Your task to perform on an android device: Add razer thresher to the cart on ebay.com Image 0: 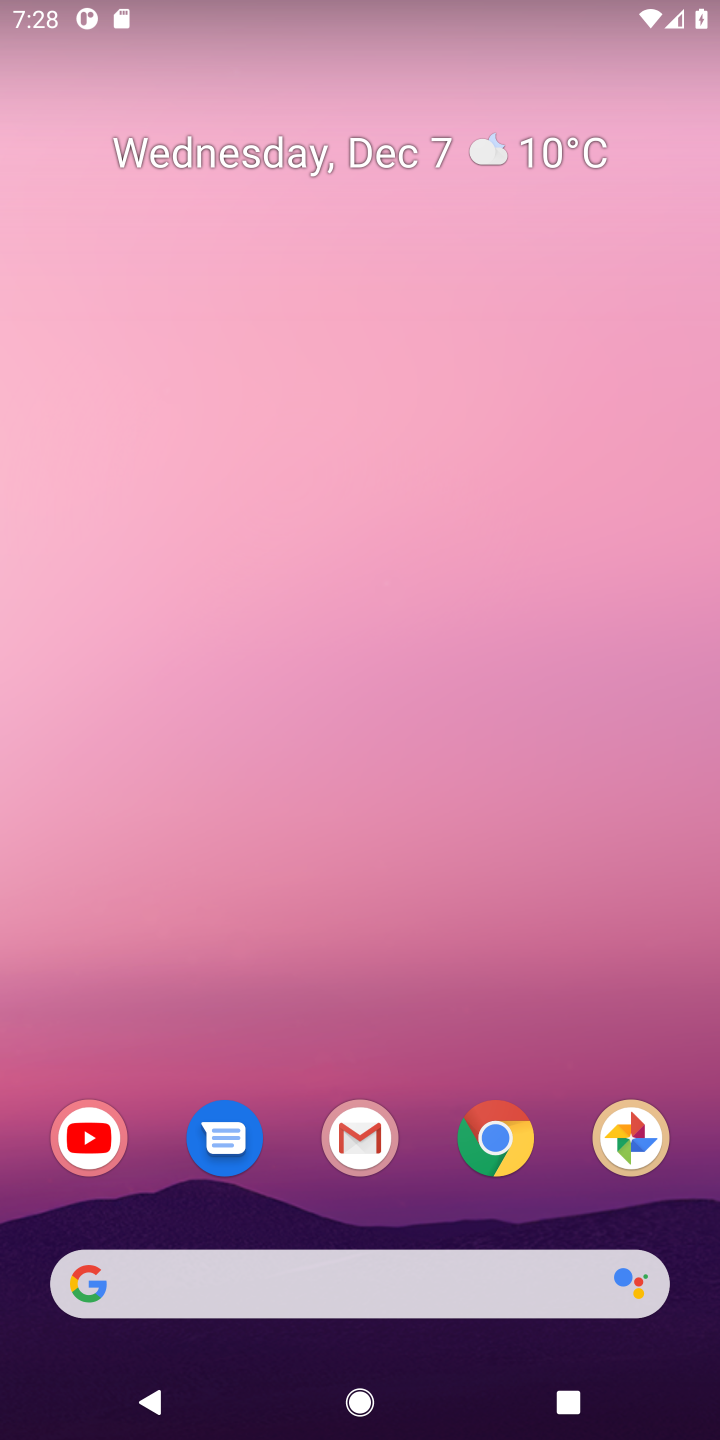
Step 0: press home button
Your task to perform on an android device: Add razer thresher to the cart on ebay.com Image 1: 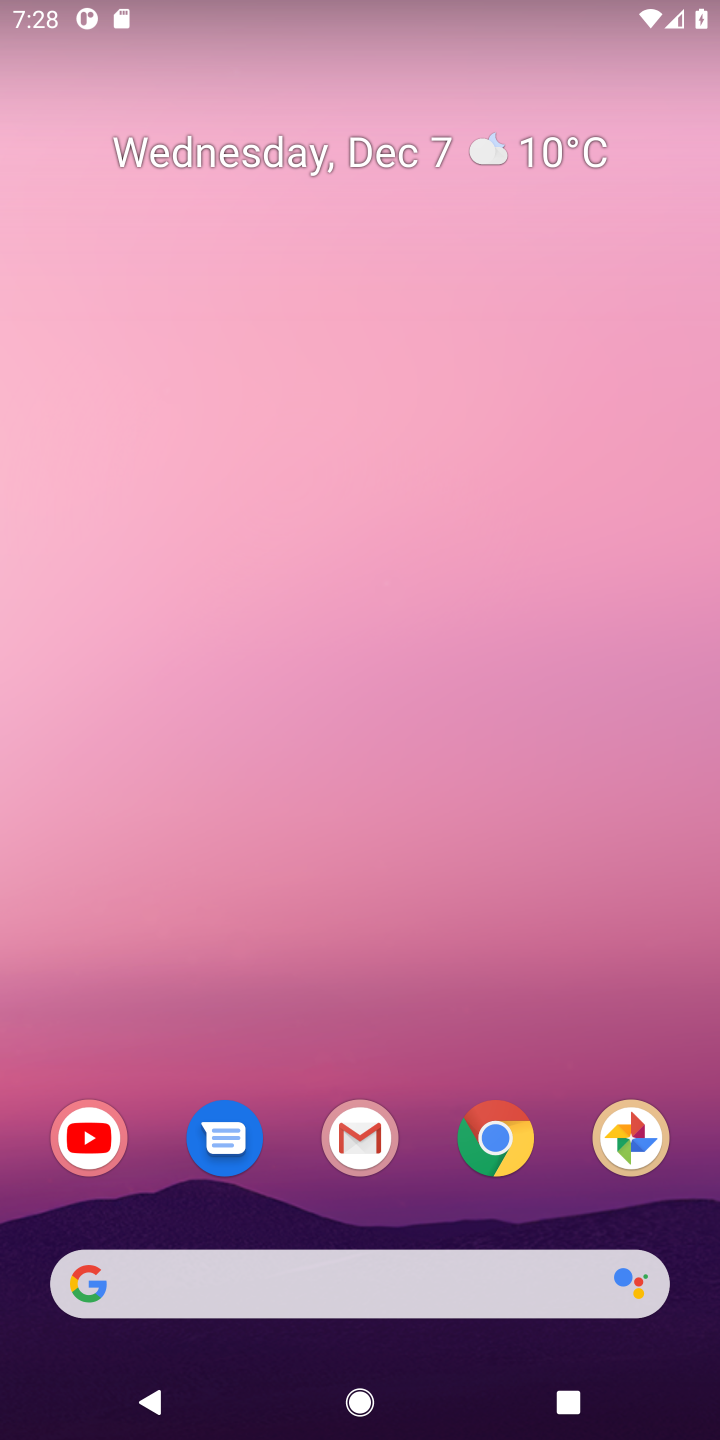
Step 1: click (136, 1284)
Your task to perform on an android device: Add razer thresher to the cart on ebay.com Image 2: 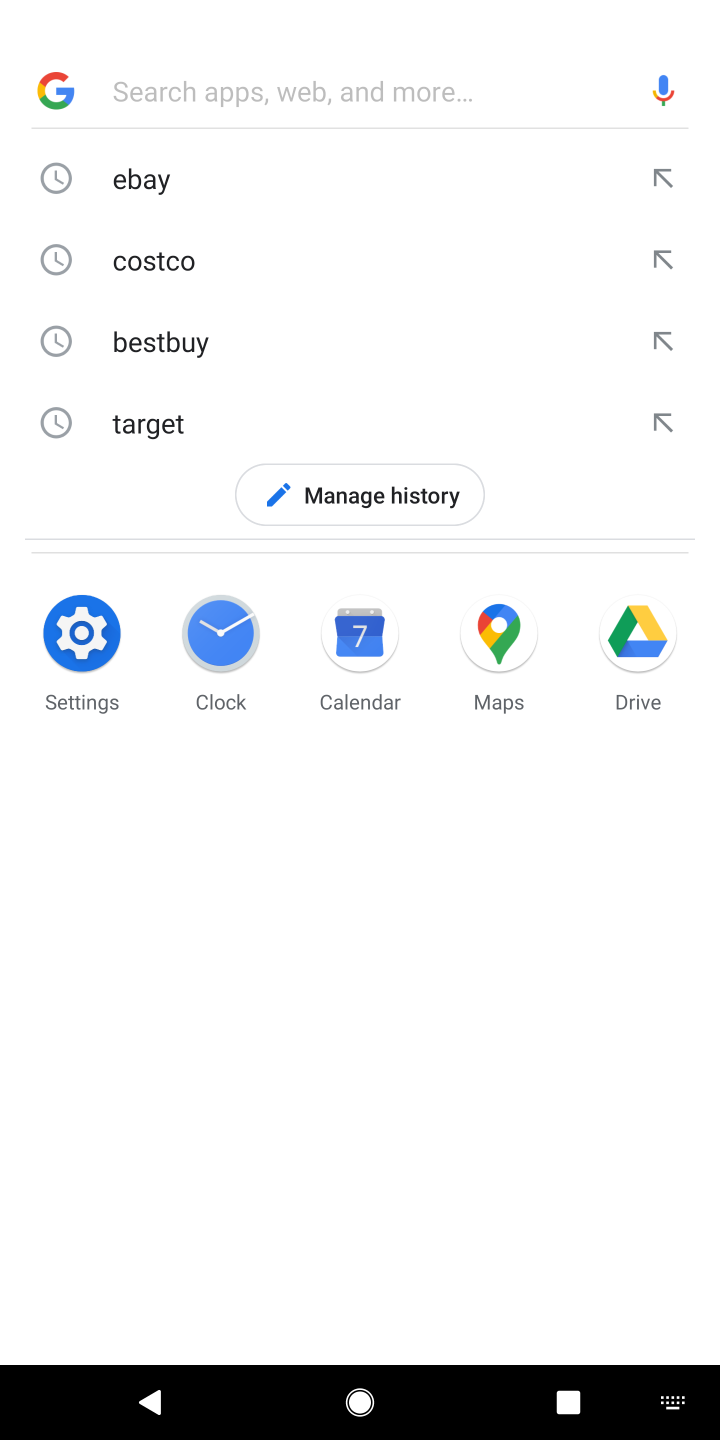
Step 2: type "ebay.com"
Your task to perform on an android device: Add razer thresher to the cart on ebay.com Image 3: 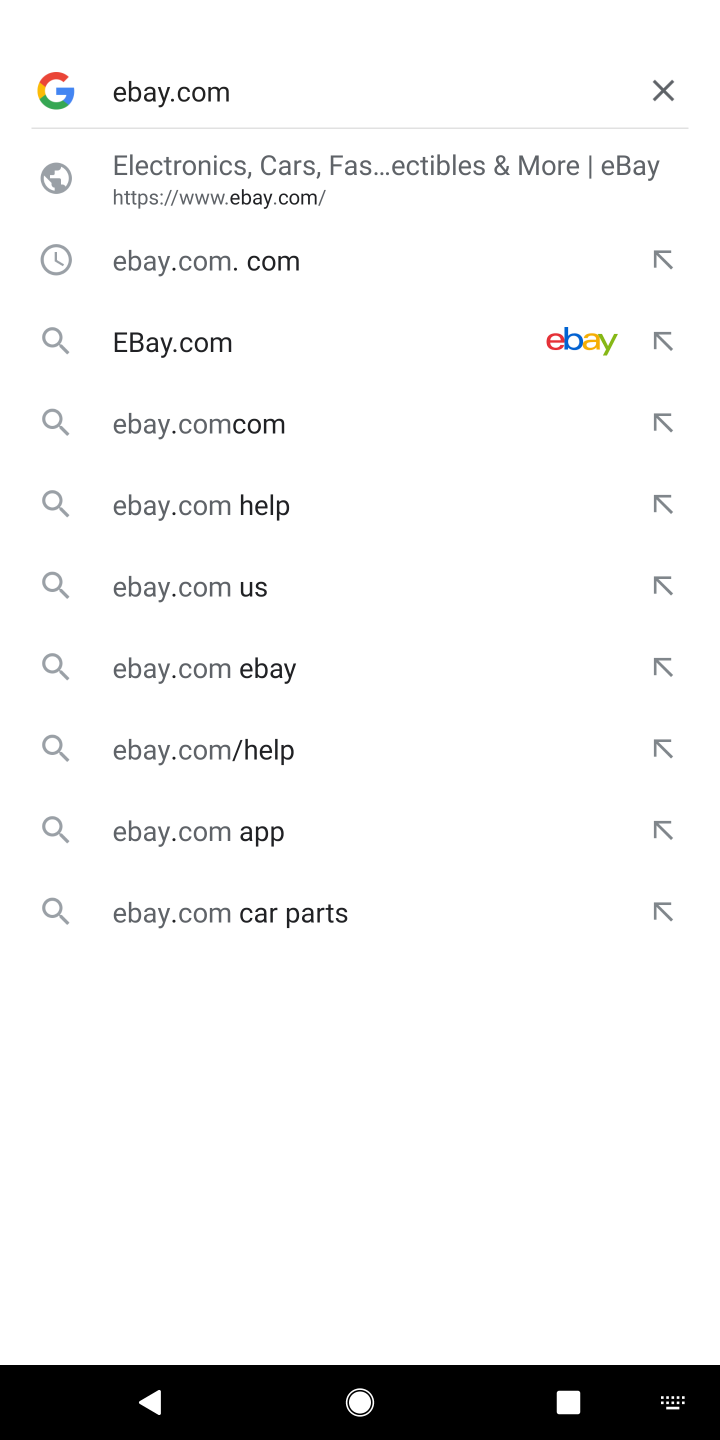
Step 3: press enter
Your task to perform on an android device: Add razer thresher to the cart on ebay.com Image 4: 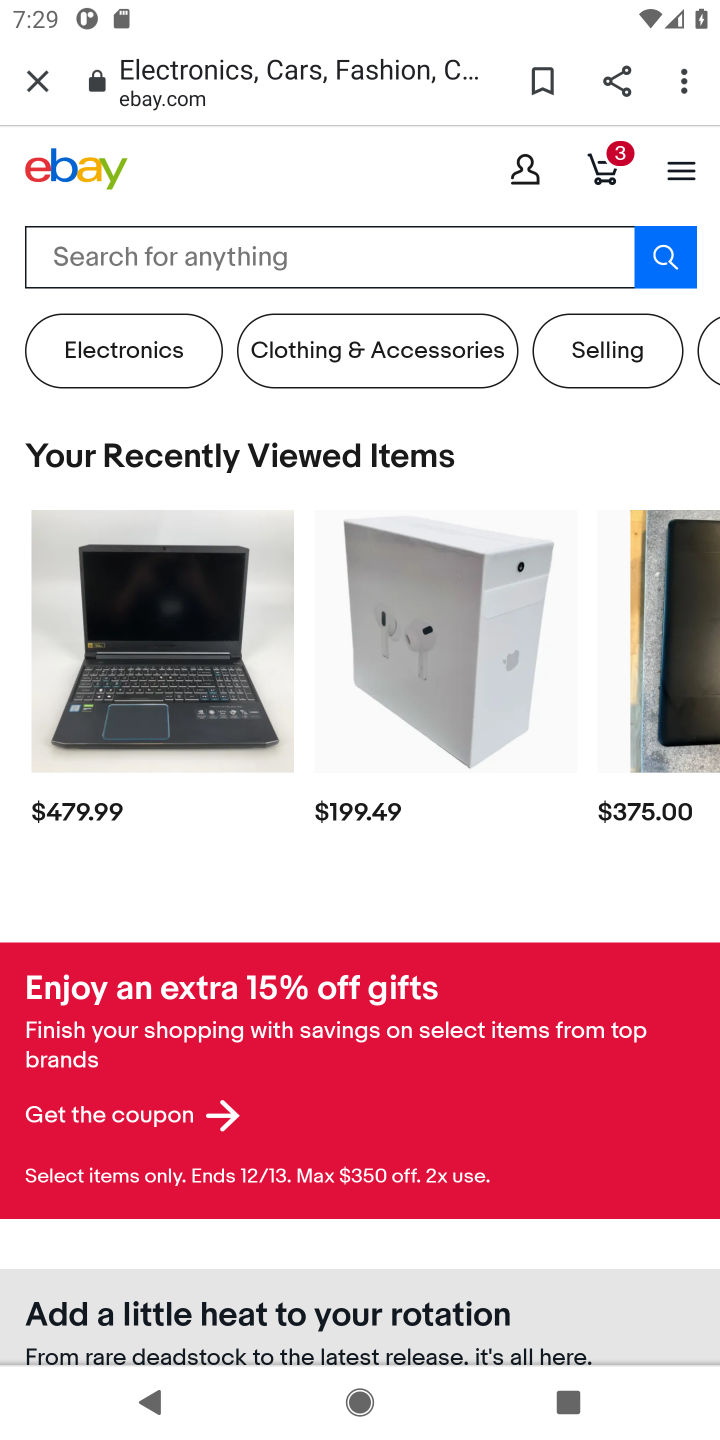
Step 4: click (134, 258)
Your task to perform on an android device: Add razer thresher to the cart on ebay.com Image 5: 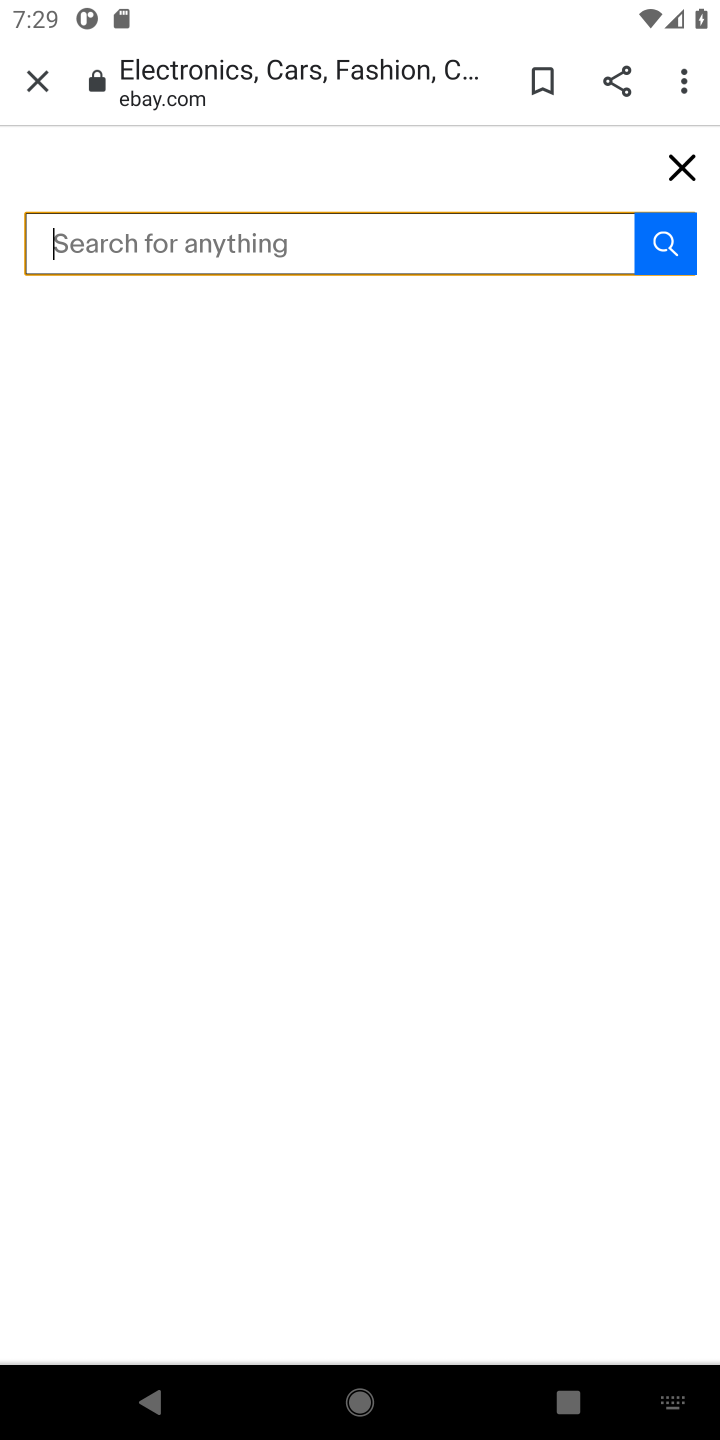
Step 5: type "razer thresher "
Your task to perform on an android device: Add razer thresher to the cart on ebay.com Image 6: 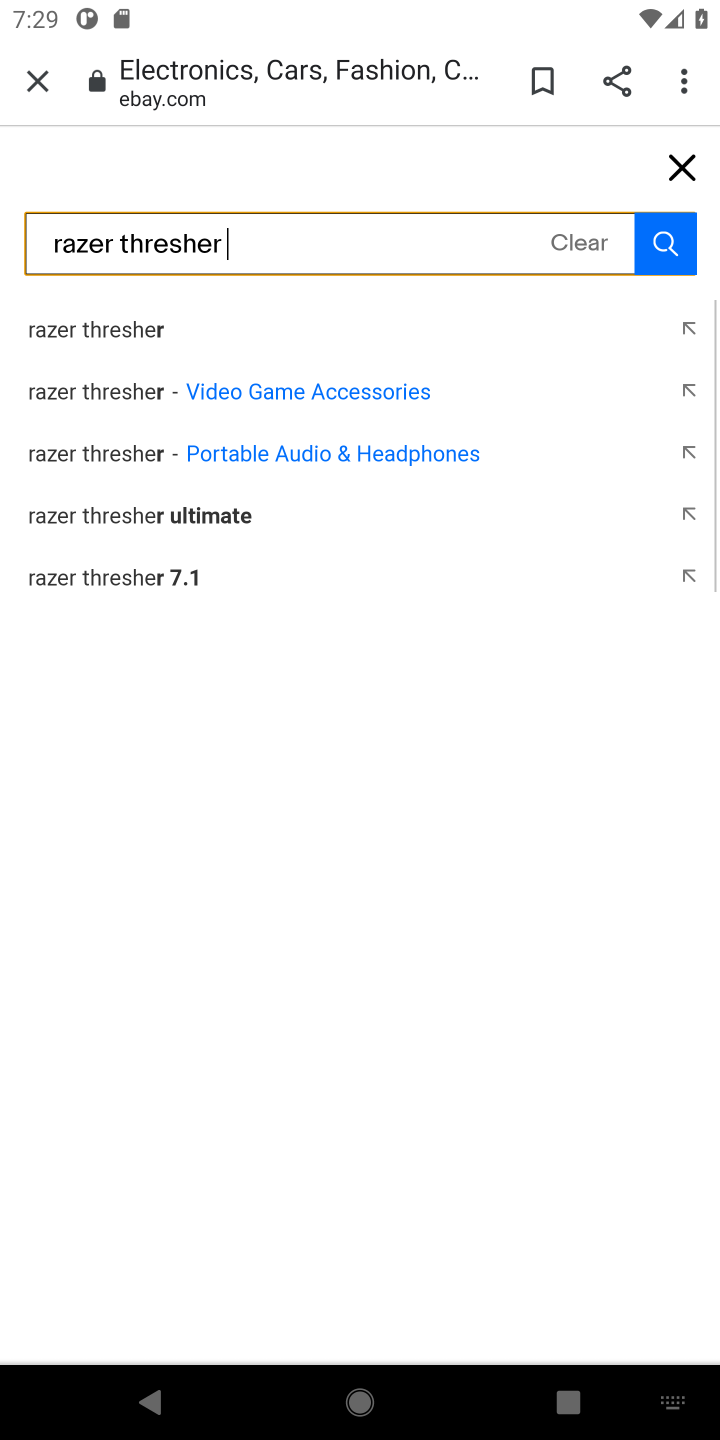
Step 6: press enter
Your task to perform on an android device: Add razer thresher to the cart on ebay.com Image 7: 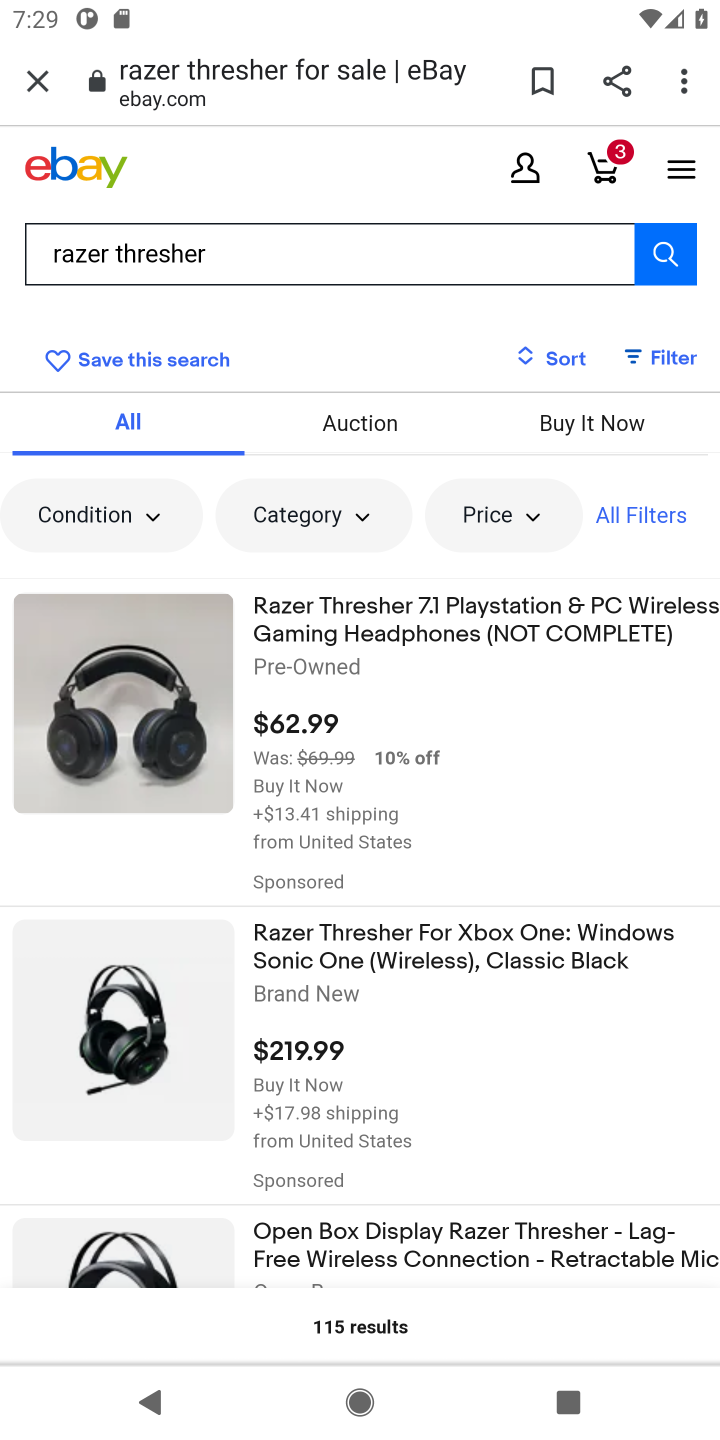
Step 7: click (372, 615)
Your task to perform on an android device: Add razer thresher to the cart on ebay.com Image 8: 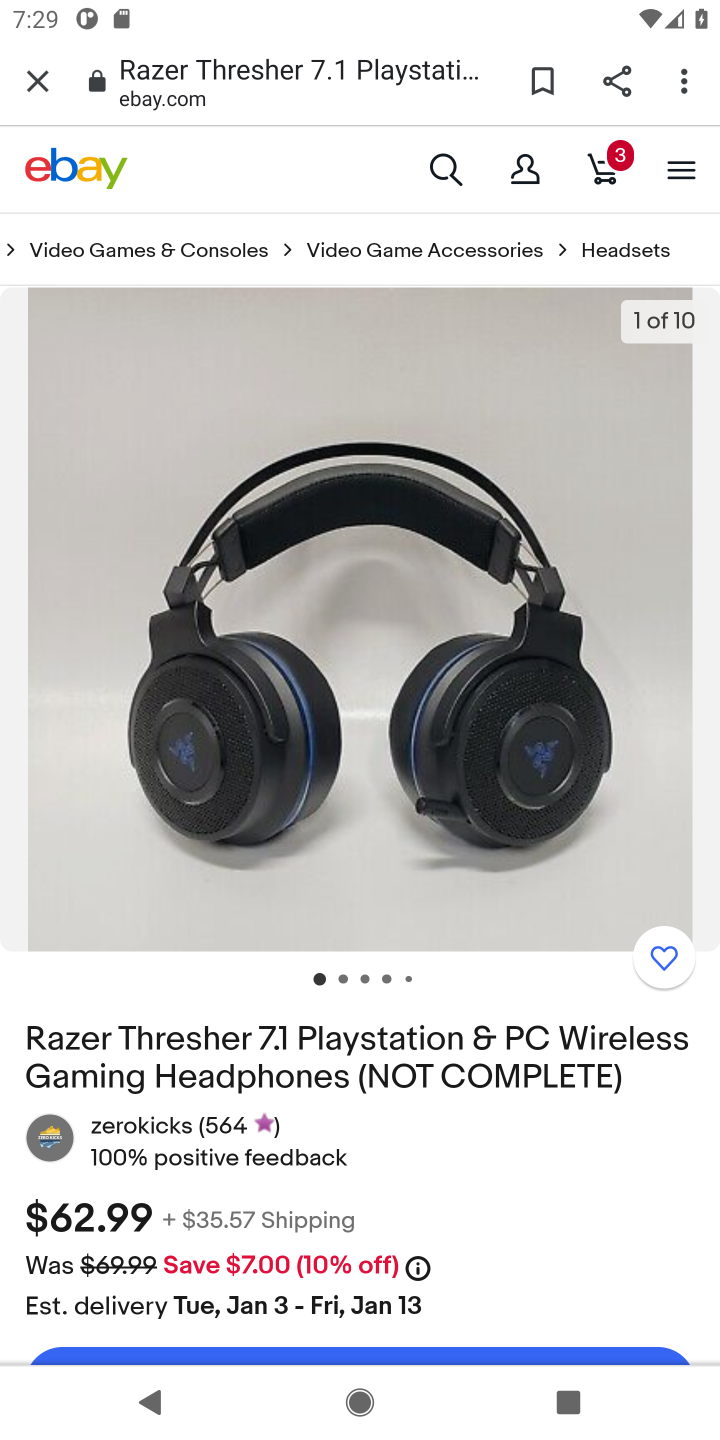
Step 8: drag from (508, 1226) to (486, 663)
Your task to perform on an android device: Add razer thresher to the cart on ebay.com Image 9: 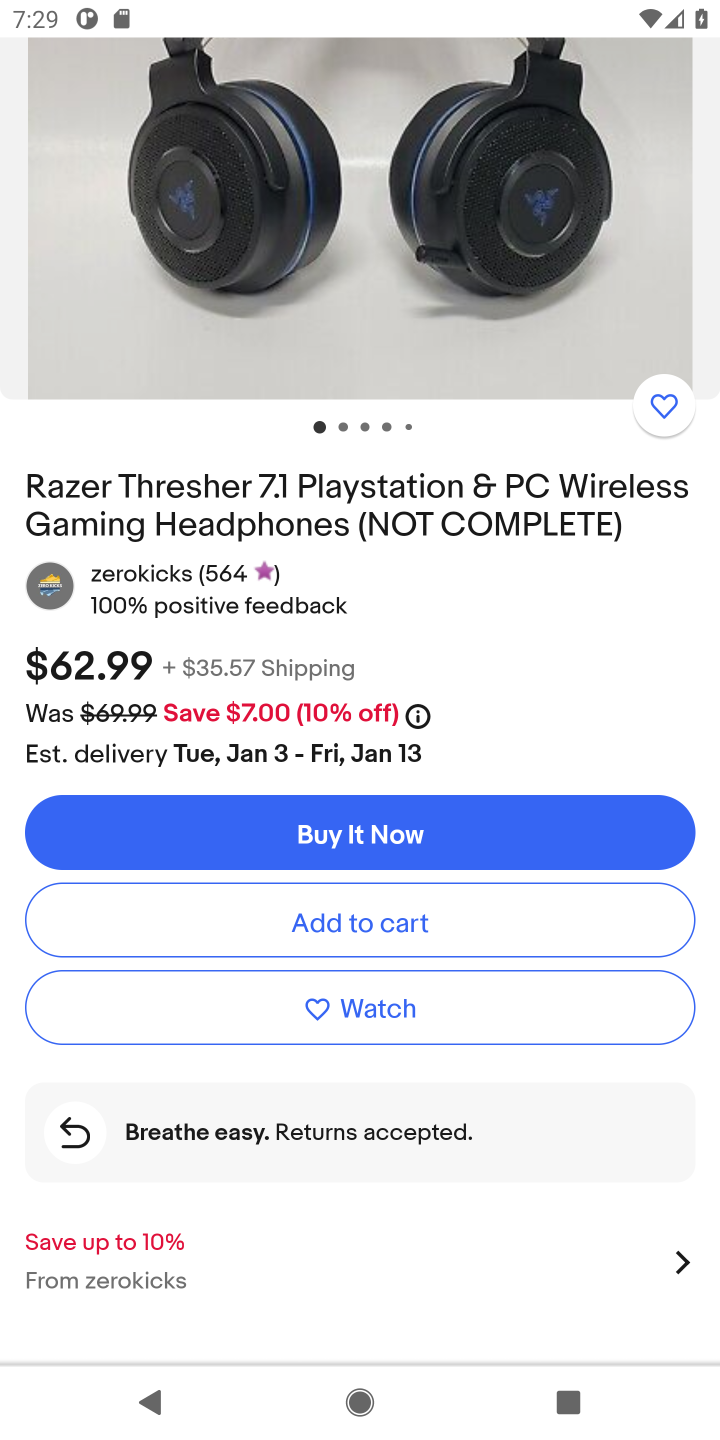
Step 9: click (367, 924)
Your task to perform on an android device: Add razer thresher to the cart on ebay.com Image 10: 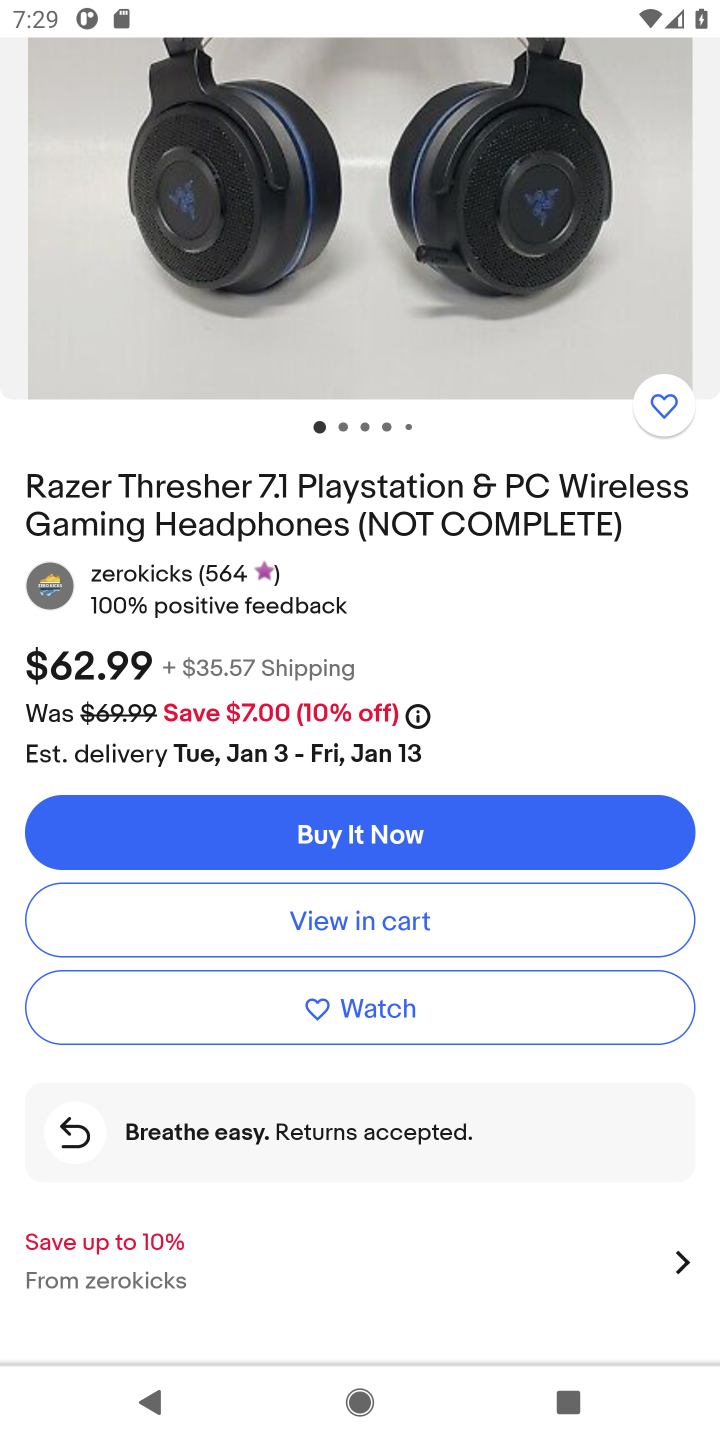
Step 10: task complete